Your task to perform on an android device: change the upload size in google photos Image 0: 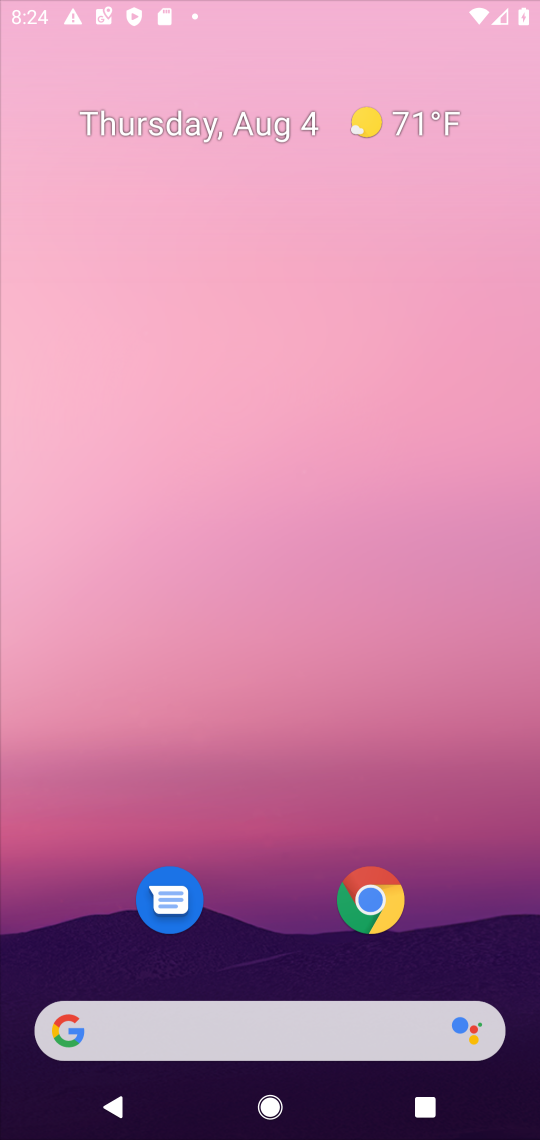
Step 0: drag from (281, 742) to (357, 321)
Your task to perform on an android device: change the upload size in google photos Image 1: 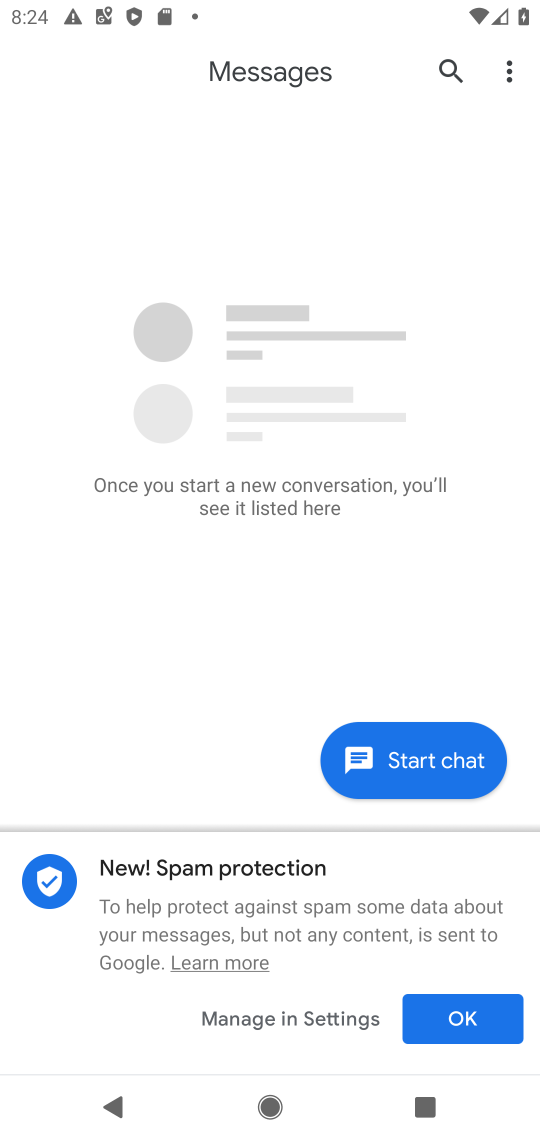
Step 1: press home button
Your task to perform on an android device: change the upload size in google photos Image 2: 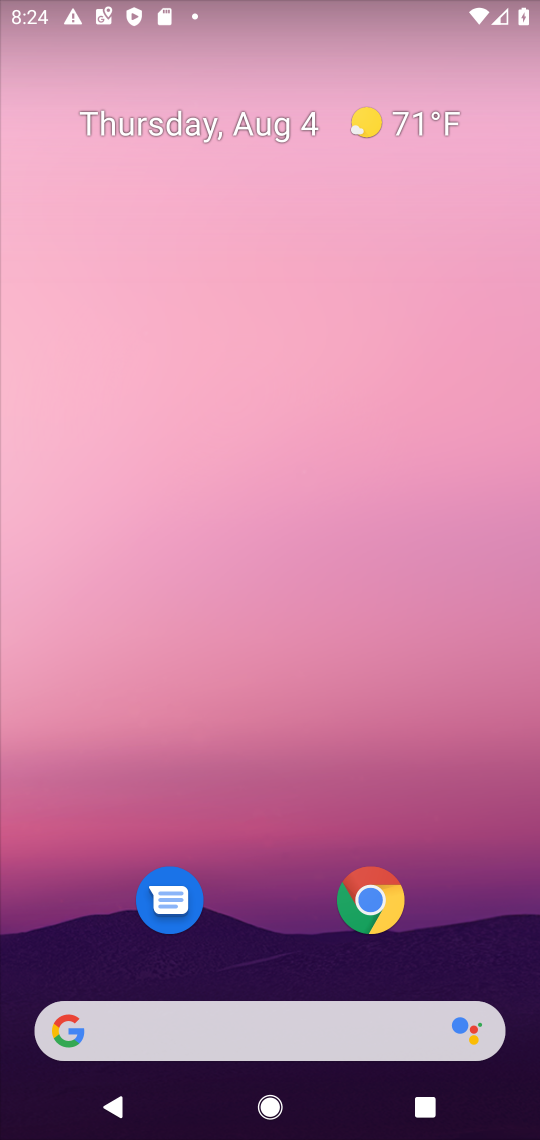
Step 2: drag from (216, 475) to (180, 122)
Your task to perform on an android device: change the upload size in google photos Image 3: 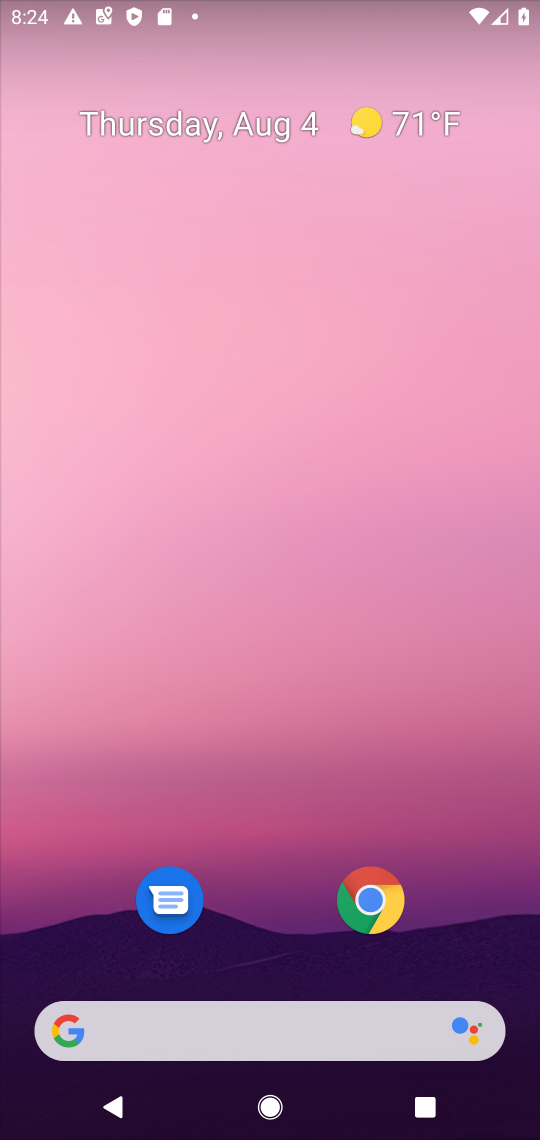
Step 3: drag from (292, 331) to (363, 60)
Your task to perform on an android device: change the upload size in google photos Image 4: 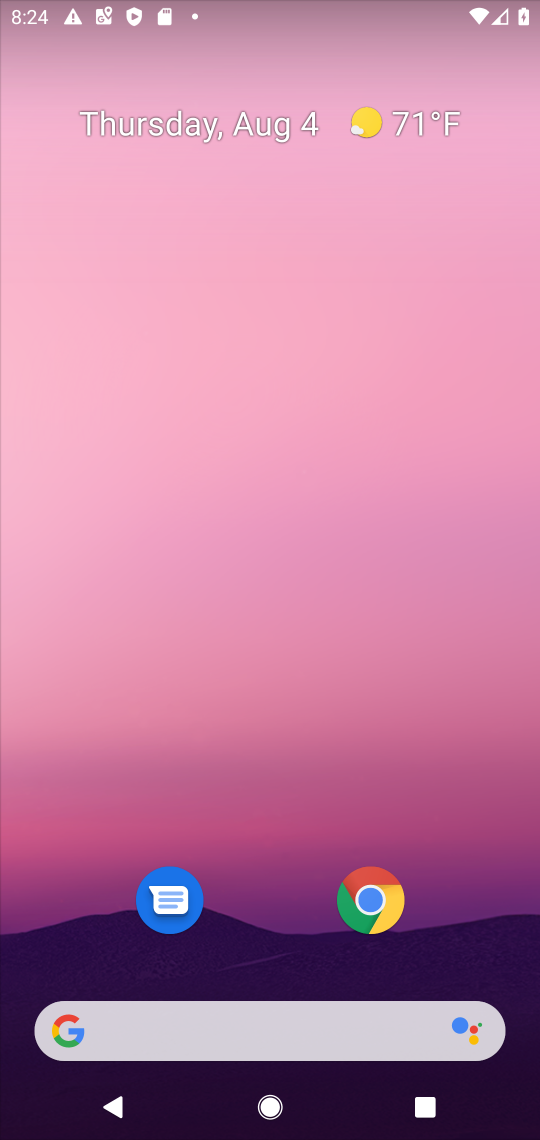
Step 4: drag from (297, 496) to (300, 58)
Your task to perform on an android device: change the upload size in google photos Image 5: 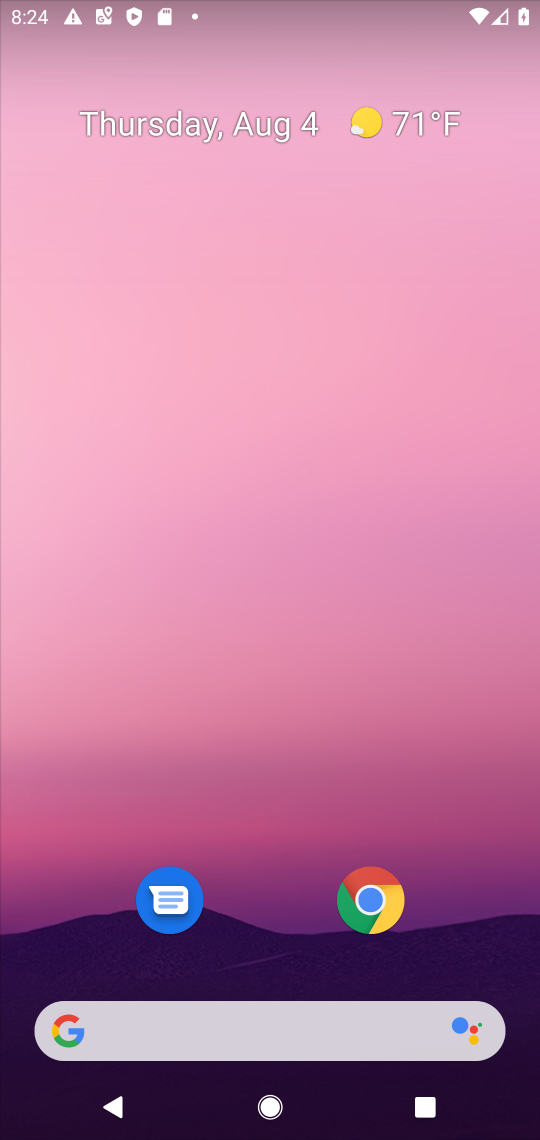
Step 5: drag from (267, 888) to (298, 154)
Your task to perform on an android device: change the upload size in google photos Image 6: 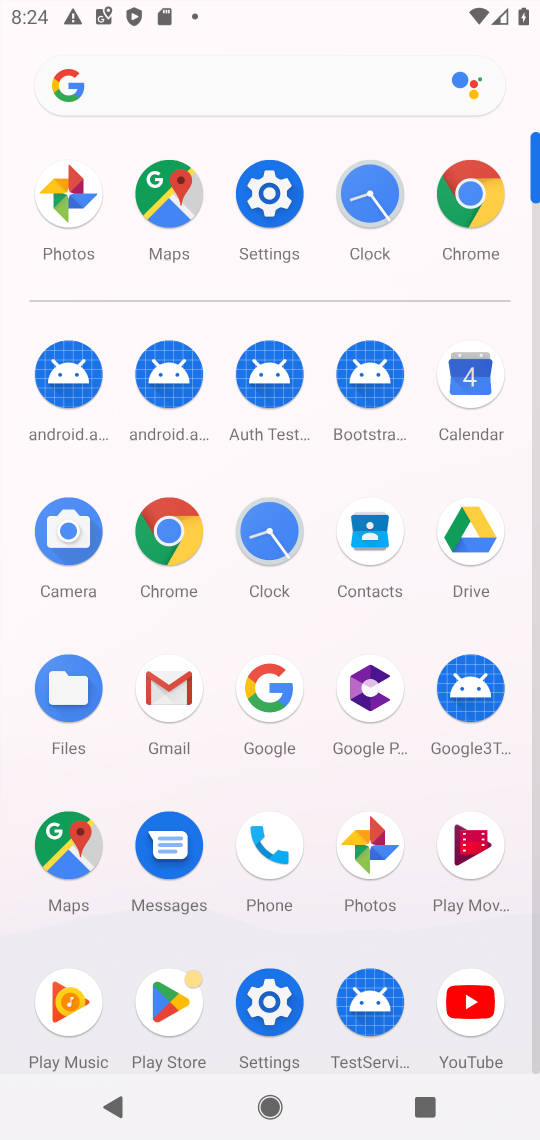
Step 6: click (367, 838)
Your task to perform on an android device: change the upload size in google photos Image 7: 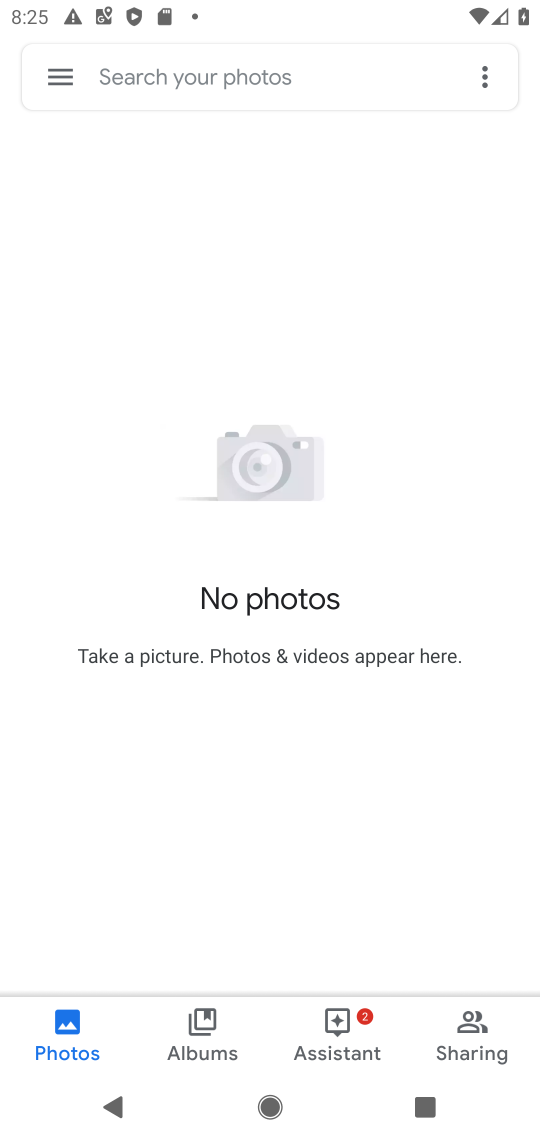
Step 7: click (62, 78)
Your task to perform on an android device: change the upload size in google photos Image 8: 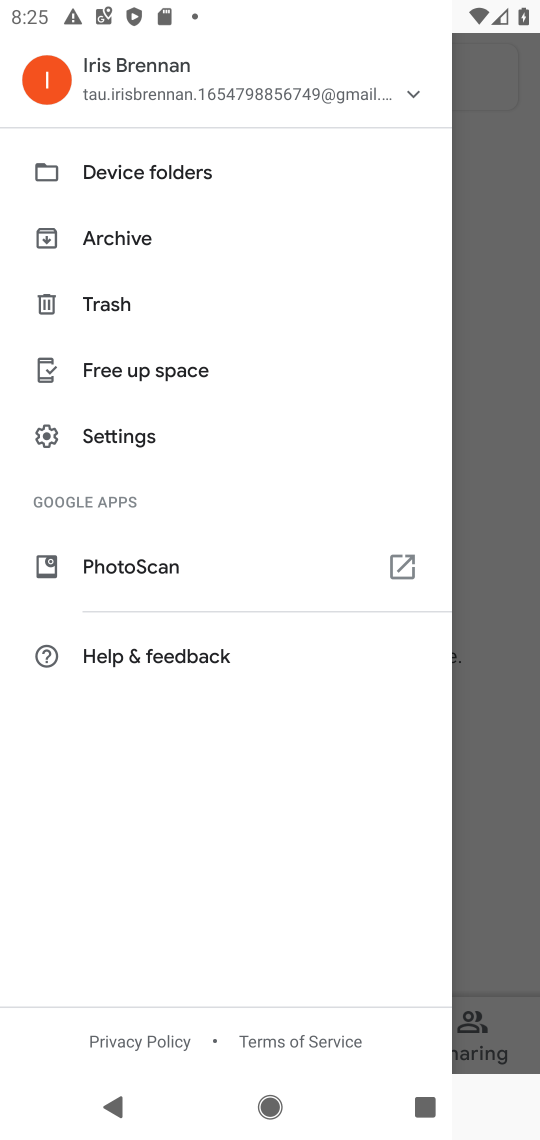
Step 8: click (149, 425)
Your task to perform on an android device: change the upload size in google photos Image 9: 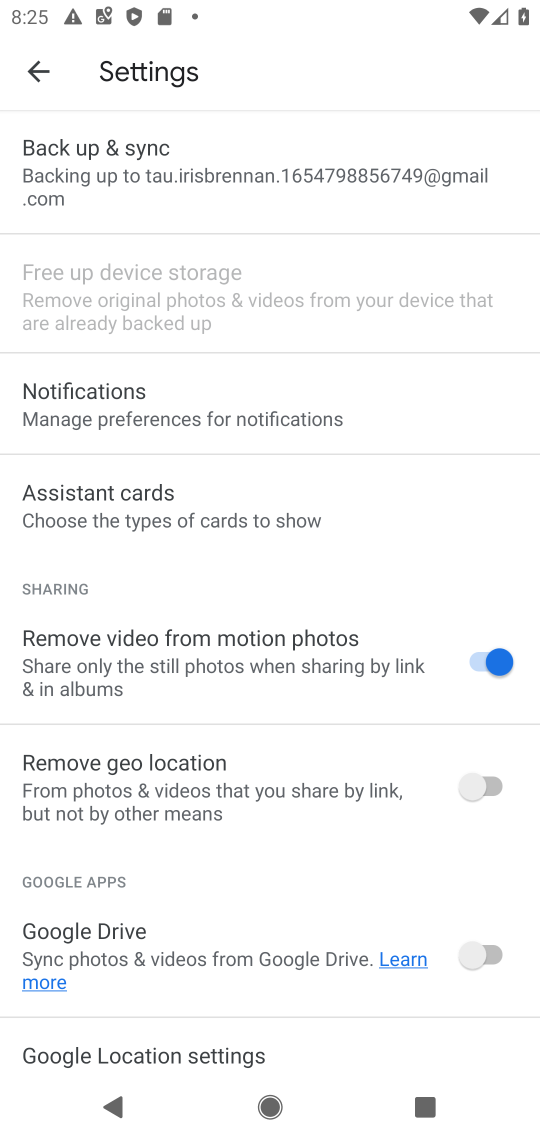
Step 9: click (65, 178)
Your task to perform on an android device: change the upload size in google photos Image 10: 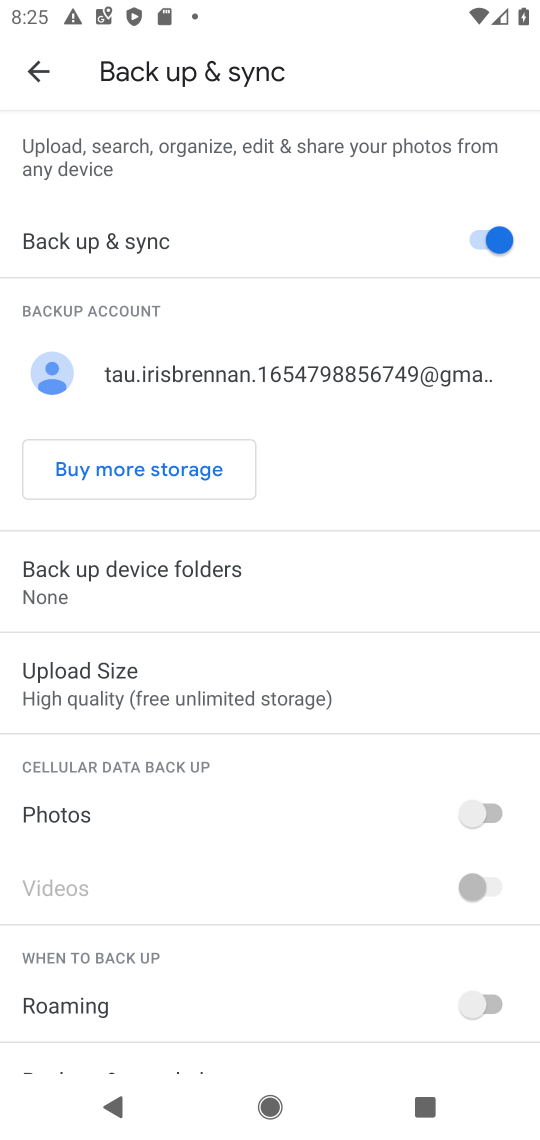
Step 10: click (113, 678)
Your task to perform on an android device: change the upload size in google photos Image 11: 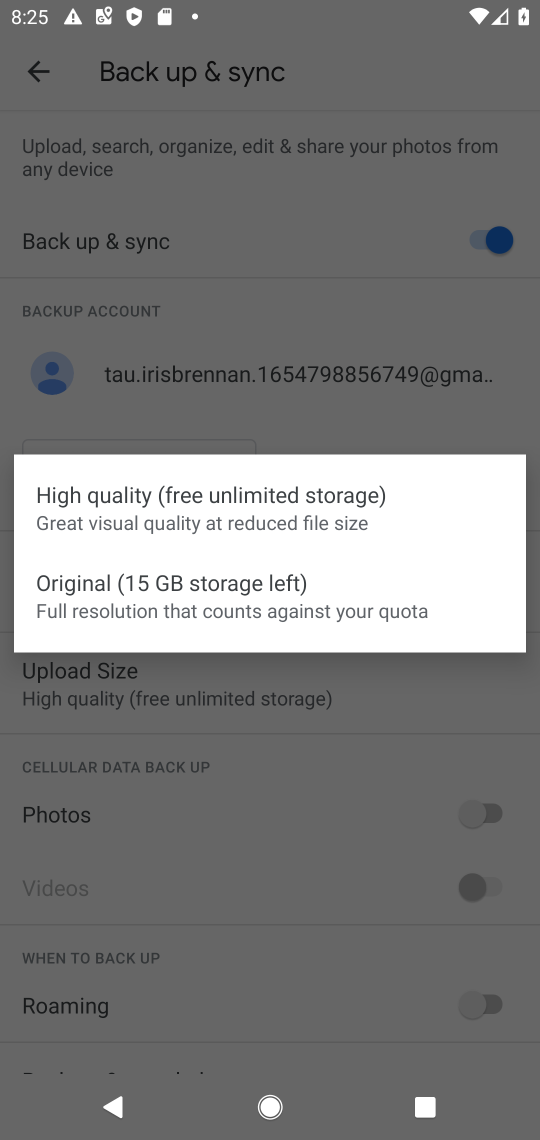
Step 11: click (154, 630)
Your task to perform on an android device: change the upload size in google photos Image 12: 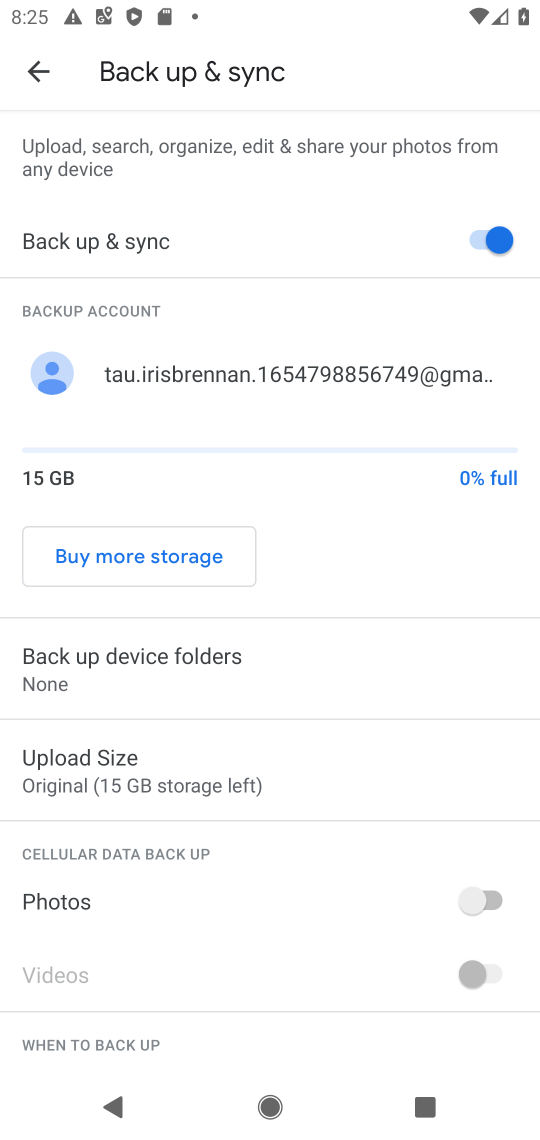
Step 12: task complete